Your task to perform on an android device: turn off javascript in the chrome app Image 0: 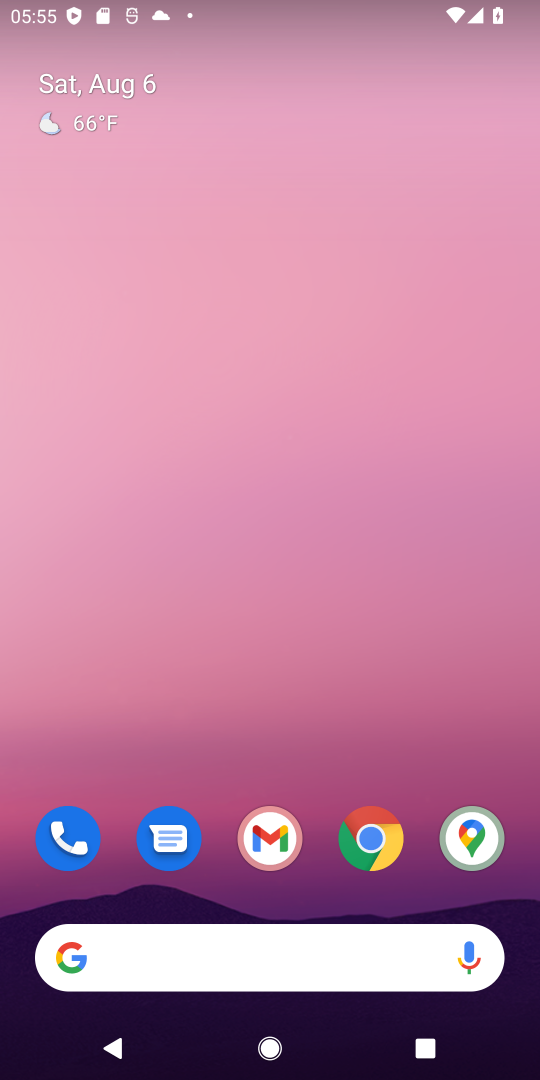
Step 0: drag from (358, 675) to (207, 0)
Your task to perform on an android device: turn off javascript in the chrome app Image 1: 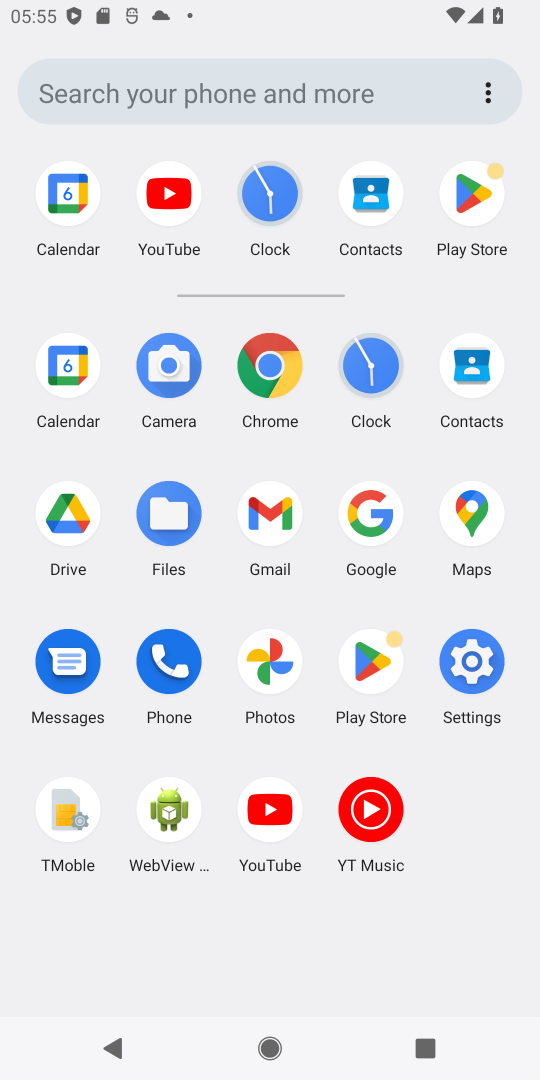
Step 1: click (270, 404)
Your task to perform on an android device: turn off javascript in the chrome app Image 2: 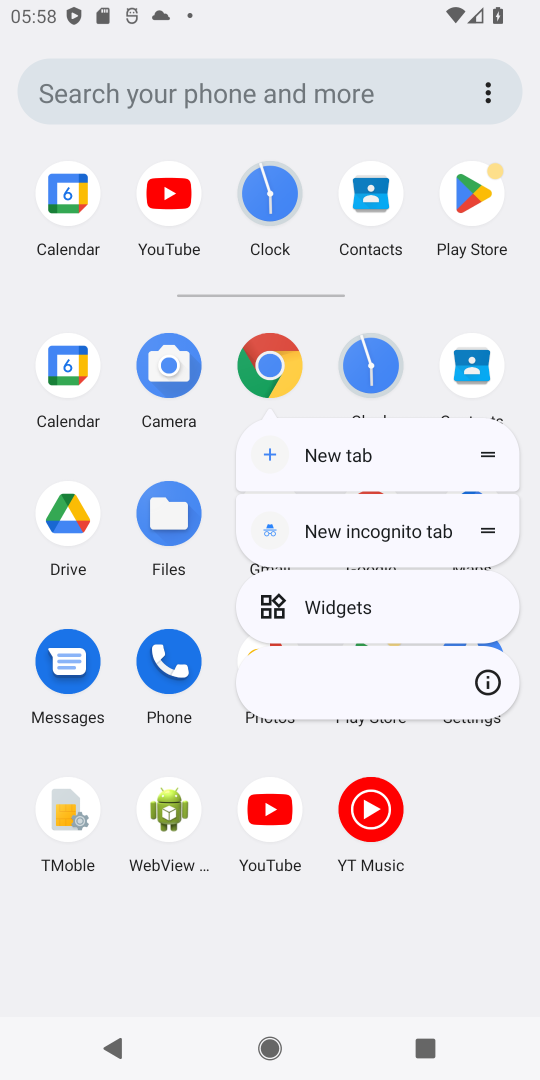
Step 2: click (278, 374)
Your task to perform on an android device: turn off javascript in the chrome app Image 3: 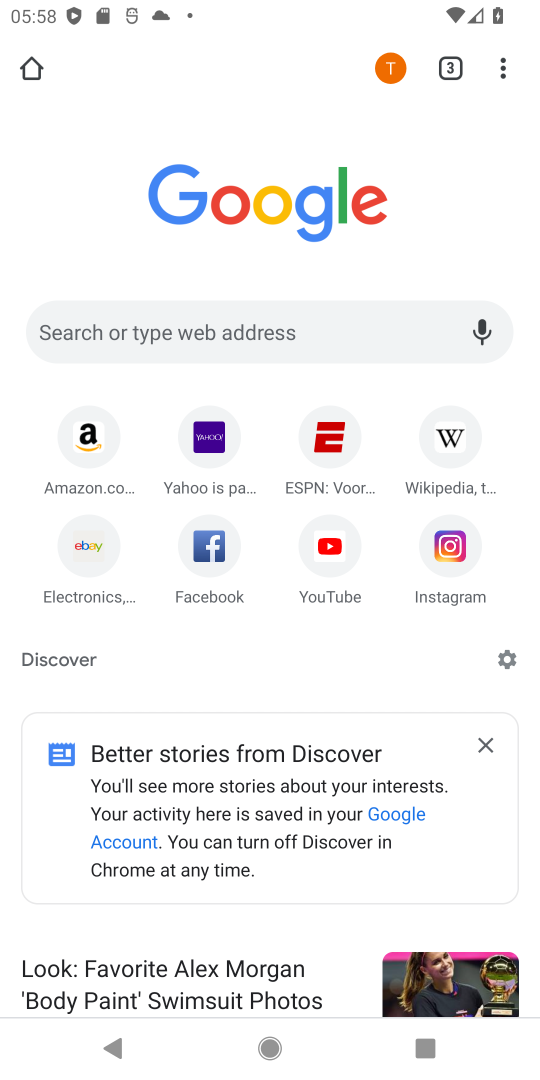
Step 3: click (505, 63)
Your task to perform on an android device: turn off javascript in the chrome app Image 4: 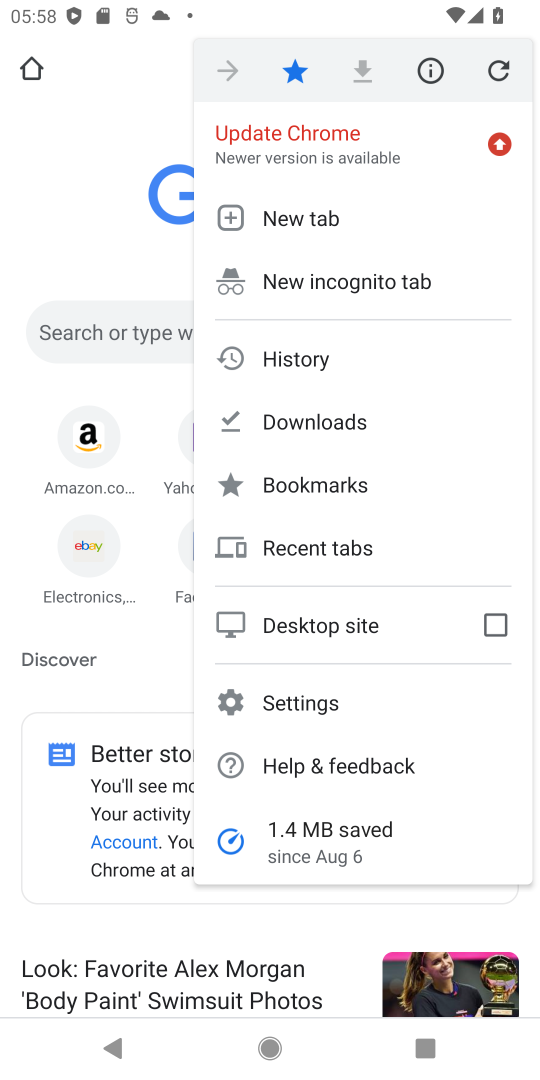
Step 4: click (347, 695)
Your task to perform on an android device: turn off javascript in the chrome app Image 5: 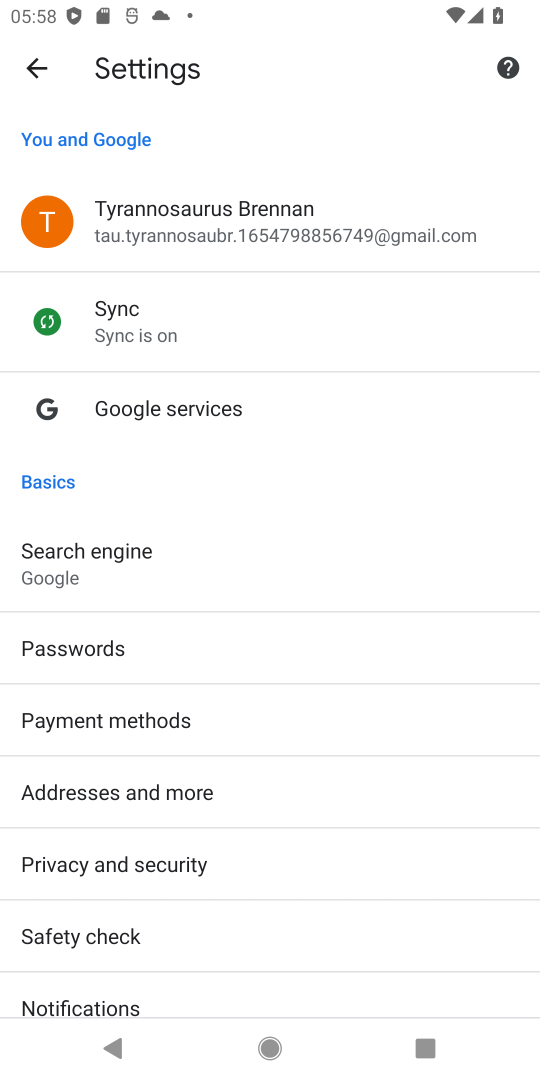
Step 5: drag from (307, 811) to (157, 490)
Your task to perform on an android device: turn off javascript in the chrome app Image 6: 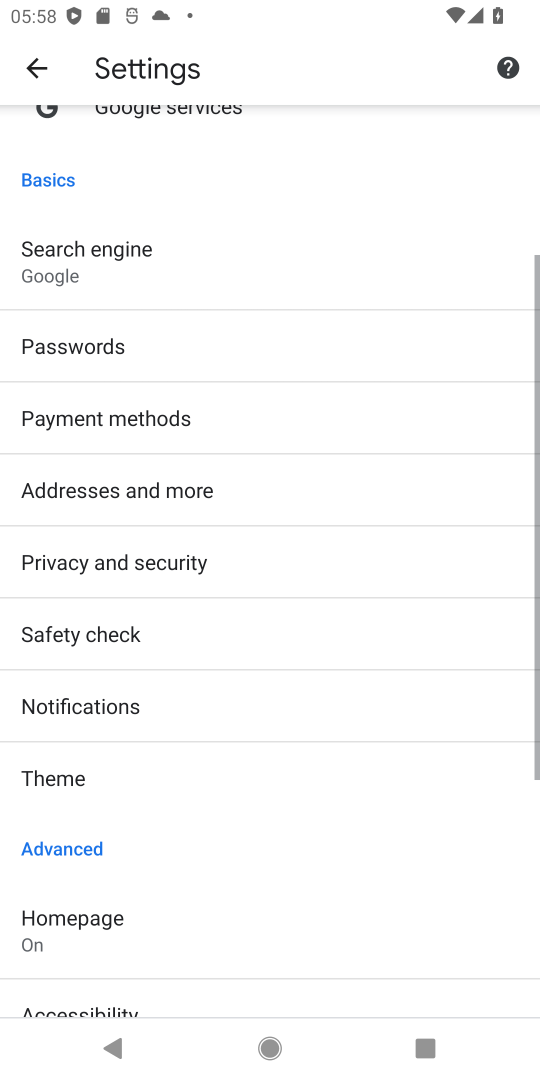
Step 6: drag from (127, 411) to (111, 325)
Your task to perform on an android device: turn off javascript in the chrome app Image 7: 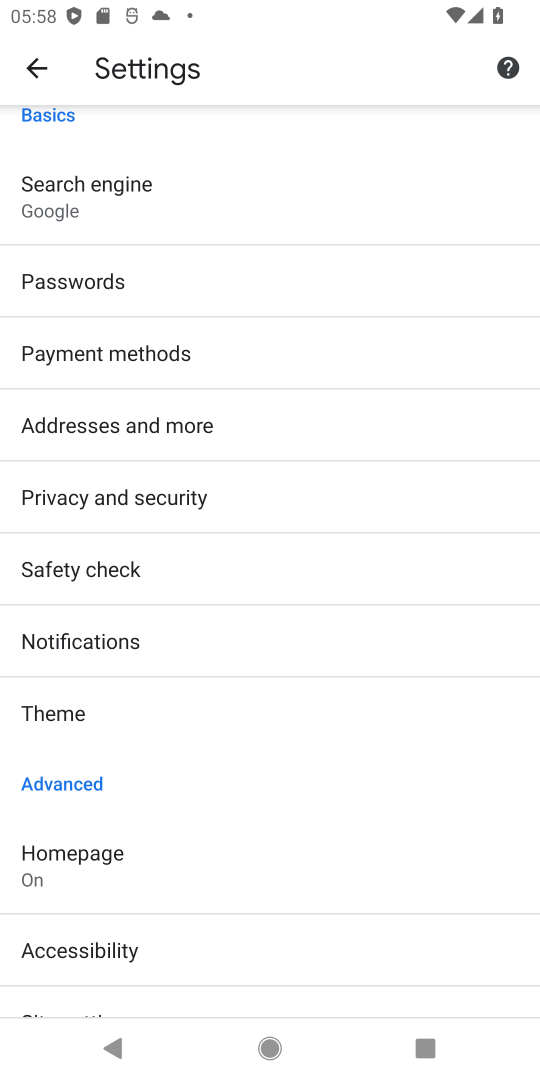
Step 7: drag from (276, 866) to (8, 138)
Your task to perform on an android device: turn off javascript in the chrome app Image 8: 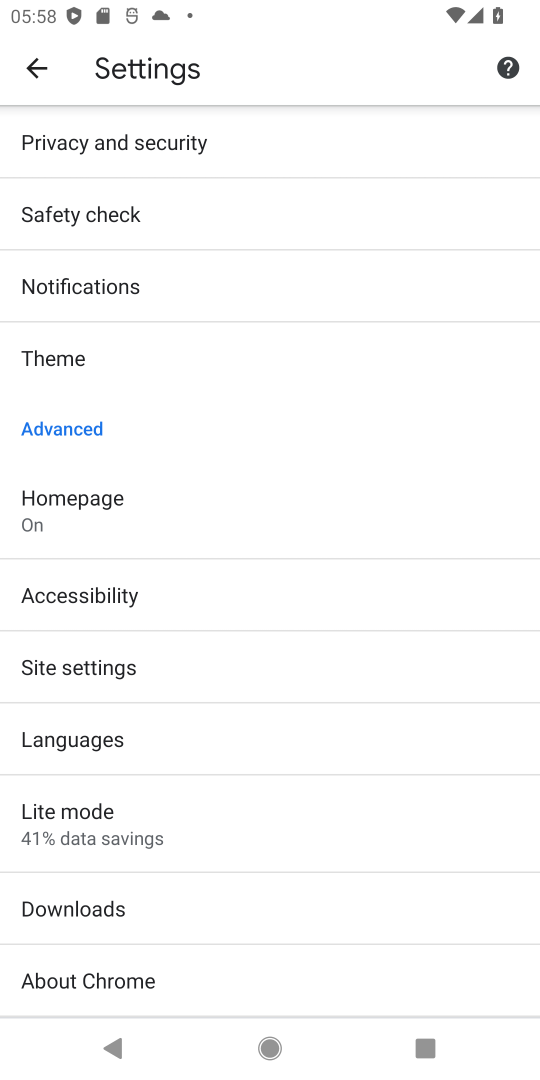
Step 8: click (191, 679)
Your task to perform on an android device: turn off javascript in the chrome app Image 9: 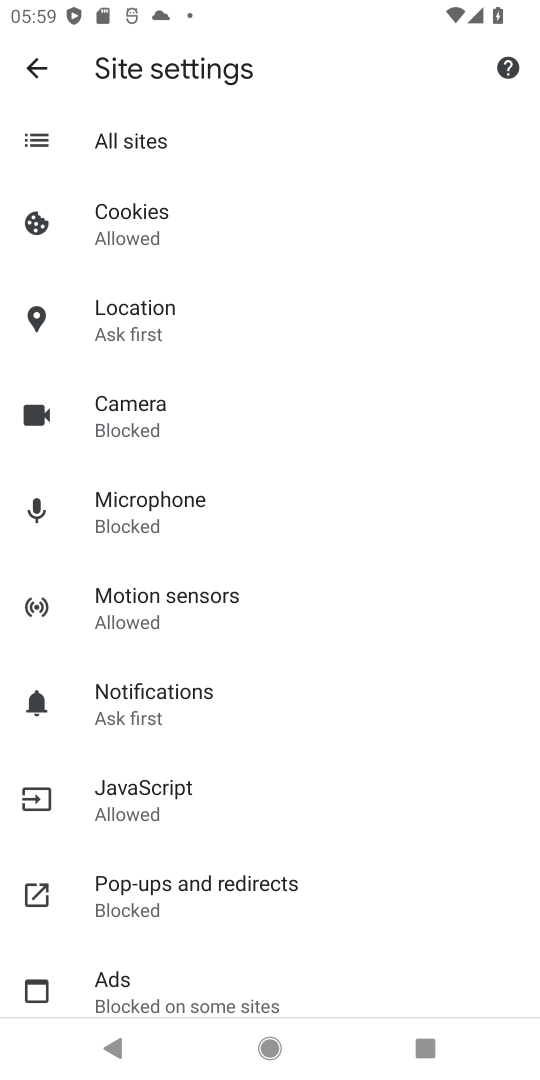
Step 9: click (147, 798)
Your task to perform on an android device: turn off javascript in the chrome app Image 10: 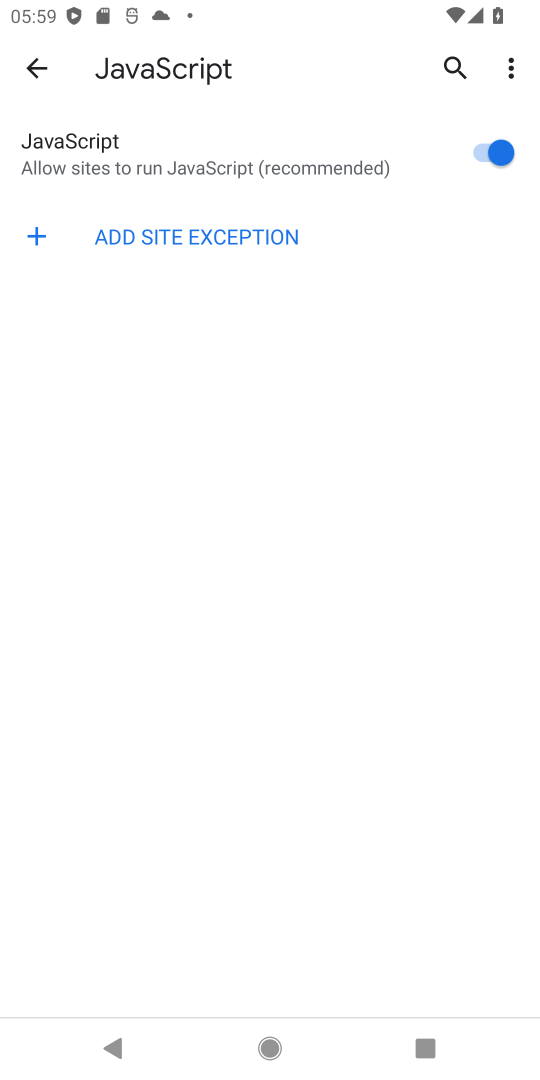
Step 10: click (488, 142)
Your task to perform on an android device: turn off javascript in the chrome app Image 11: 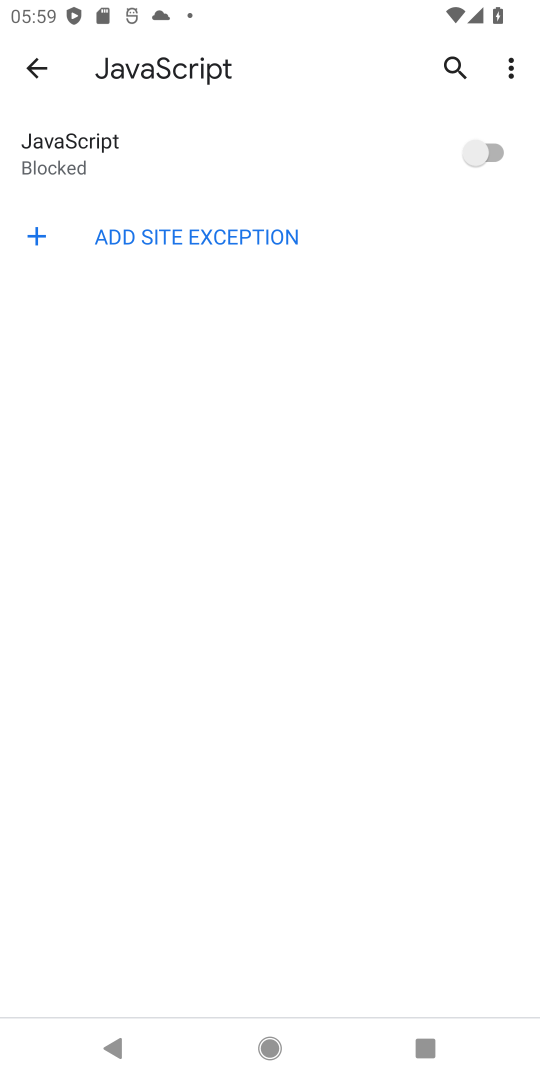
Step 11: task complete